Your task to perform on an android device: Go to settings Image 0: 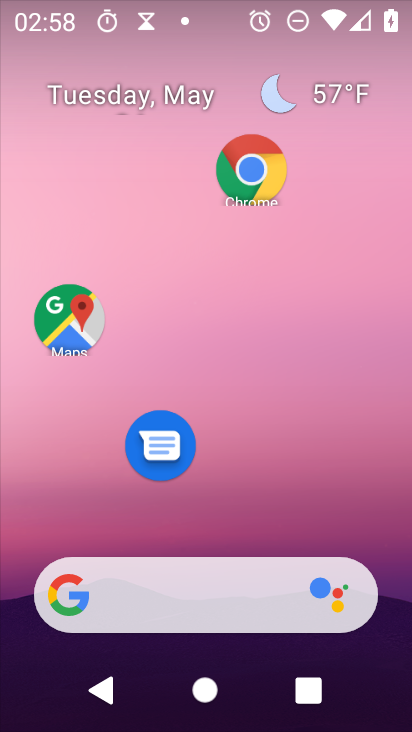
Step 0: drag from (185, 727) to (163, 186)
Your task to perform on an android device: Go to settings Image 1: 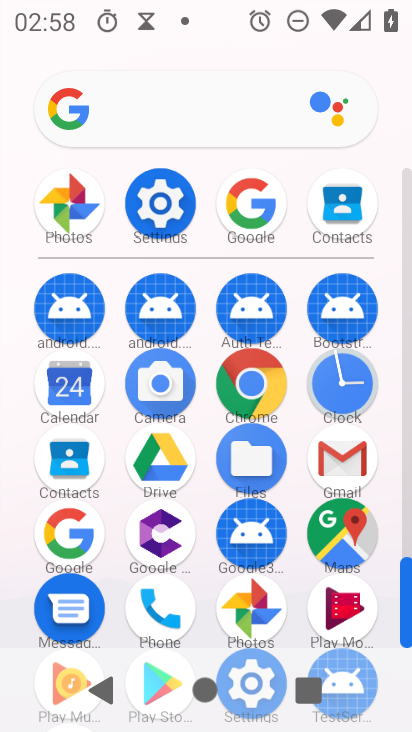
Step 1: click (159, 194)
Your task to perform on an android device: Go to settings Image 2: 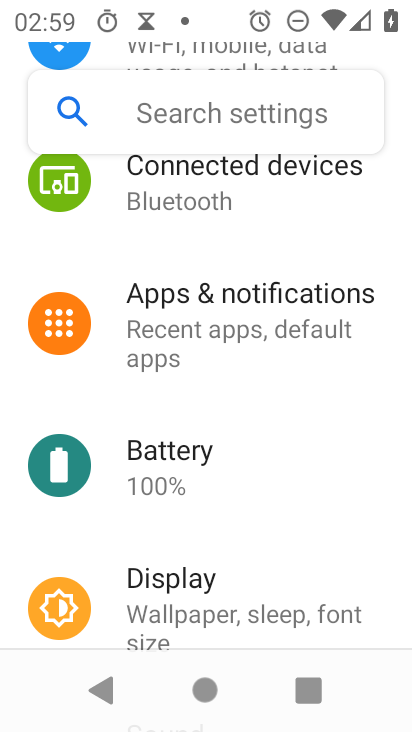
Step 2: task complete